Your task to perform on an android device: empty trash in the gmail app Image 0: 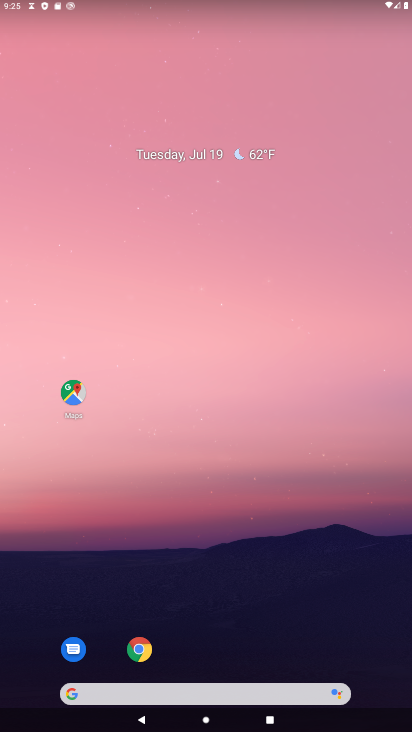
Step 0: drag from (264, 677) to (264, 8)
Your task to perform on an android device: empty trash in the gmail app Image 1: 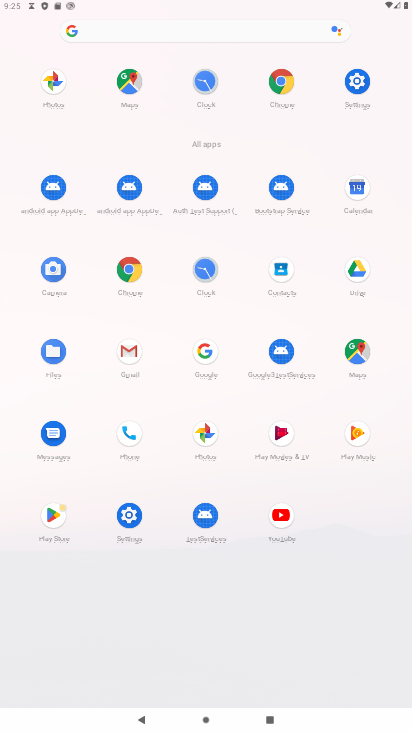
Step 1: click (136, 349)
Your task to perform on an android device: empty trash in the gmail app Image 2: 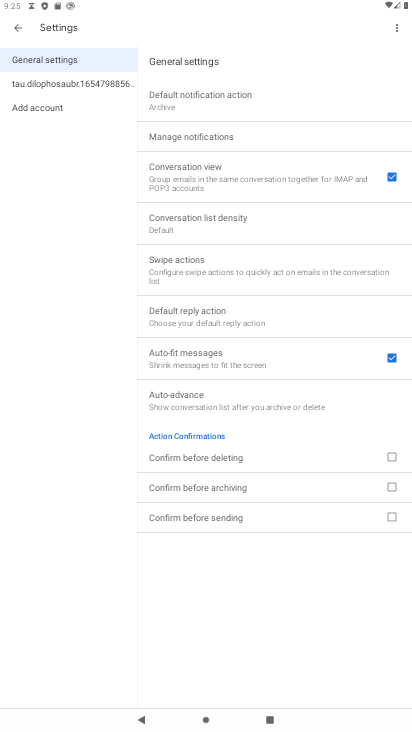
Step 2: press back button
Your task to perform on an android device: empty trash in the gmail app Image 3: 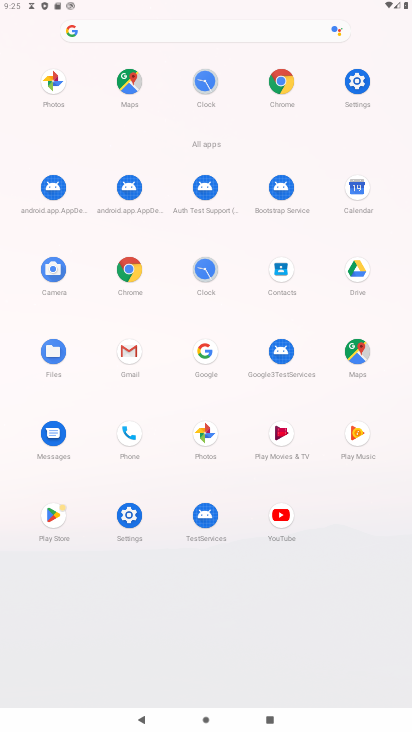
Step 3: click (125, 358)
Your task to perform on an android device: empty trash in the gmail app Image 4: 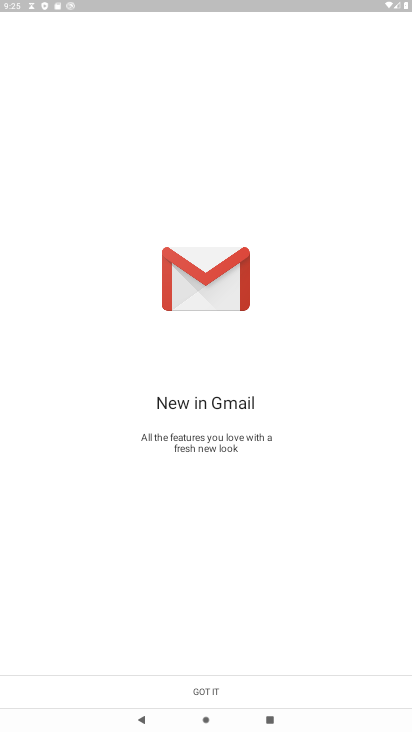
Step 4: click (230, 679)
Your task to perform on an android device: empty trash in the gmail app Image 5: 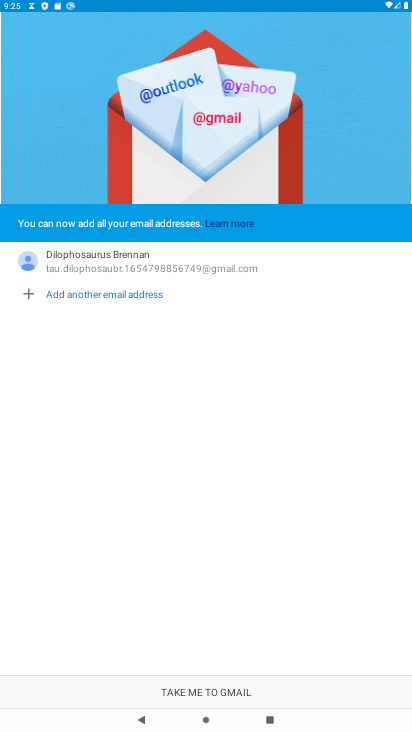
Step 5: click (230, 679)
Your task to perform on an android device: empty trash in the gmail app Image 6: 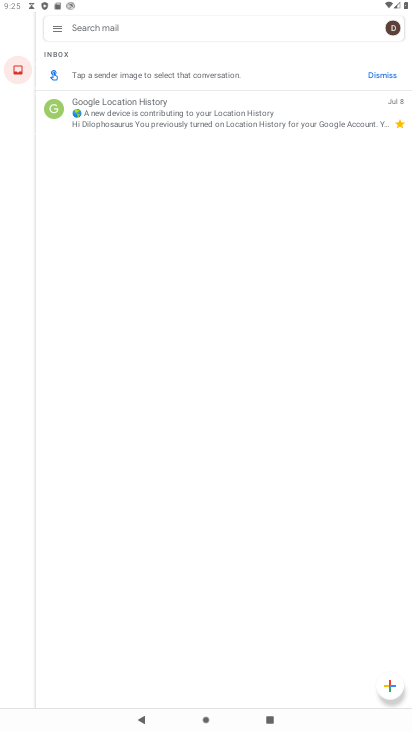
Step 6: click (60, 27)
Your task to perform on an android device: empty trash in the gmail app Image 7: 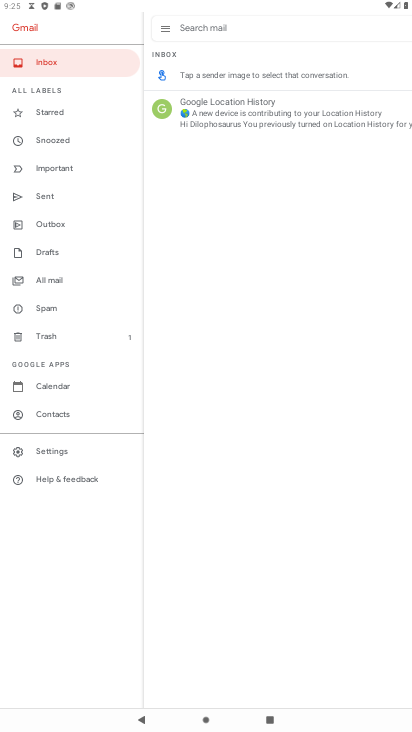
Step 7: click (55, 328)
Your task to perform on an android device: empty trash in the gmail app Image 8: 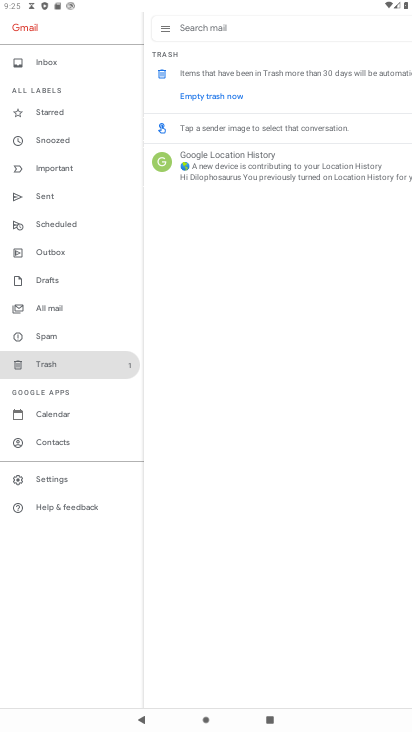
Step 8: click (217, 100)
Your task to perform on an android device: empty trash in the gmail app Image 9: 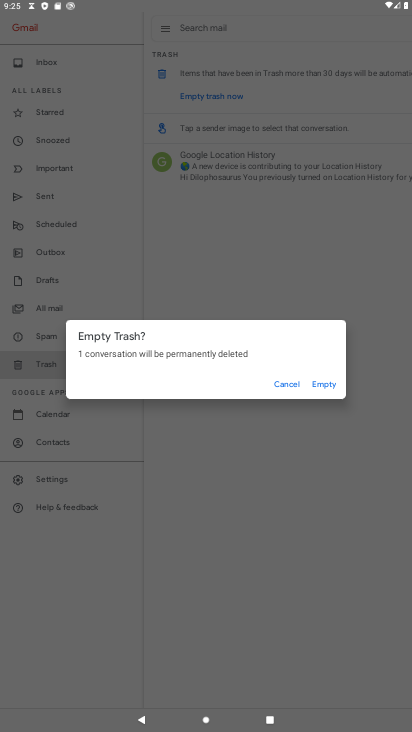
Step 9: click (323, 377)
Your task to perform on an android device: empty trash in the gmail app Image 10: 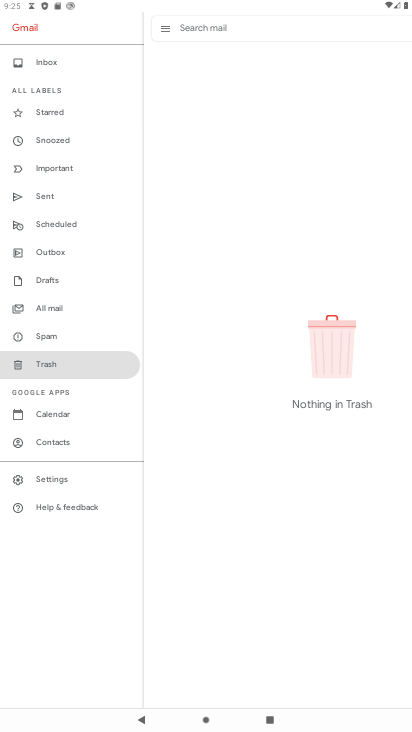
Step 10: task complete